Your task to perform on an android device: stop showing notifications on the lock screen Image 0: 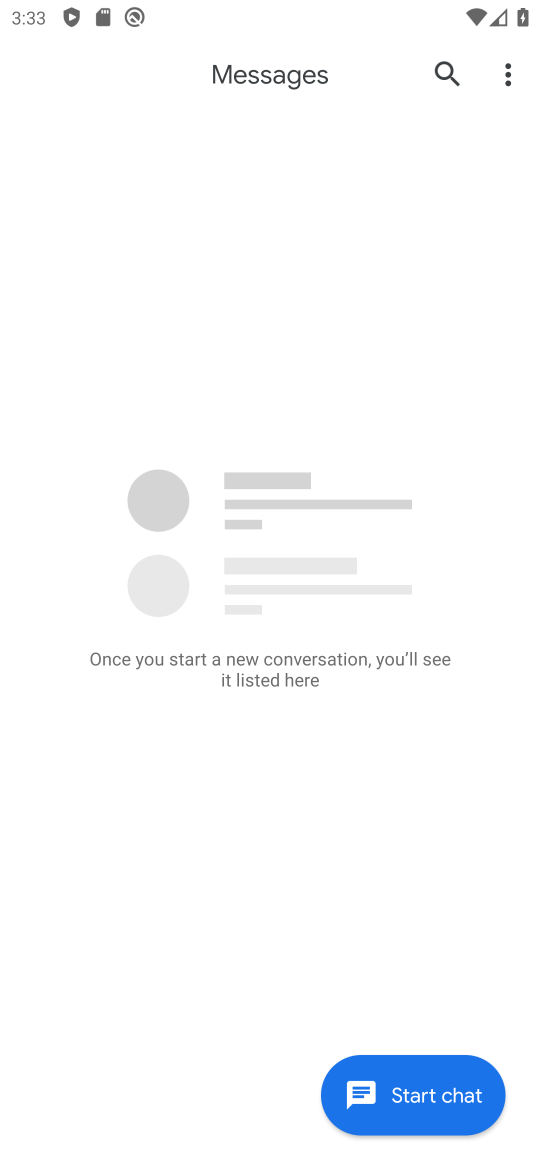
Step 0: press back button
Your task to perform on an android device: stop showing notifications on the lock screen Image 1: 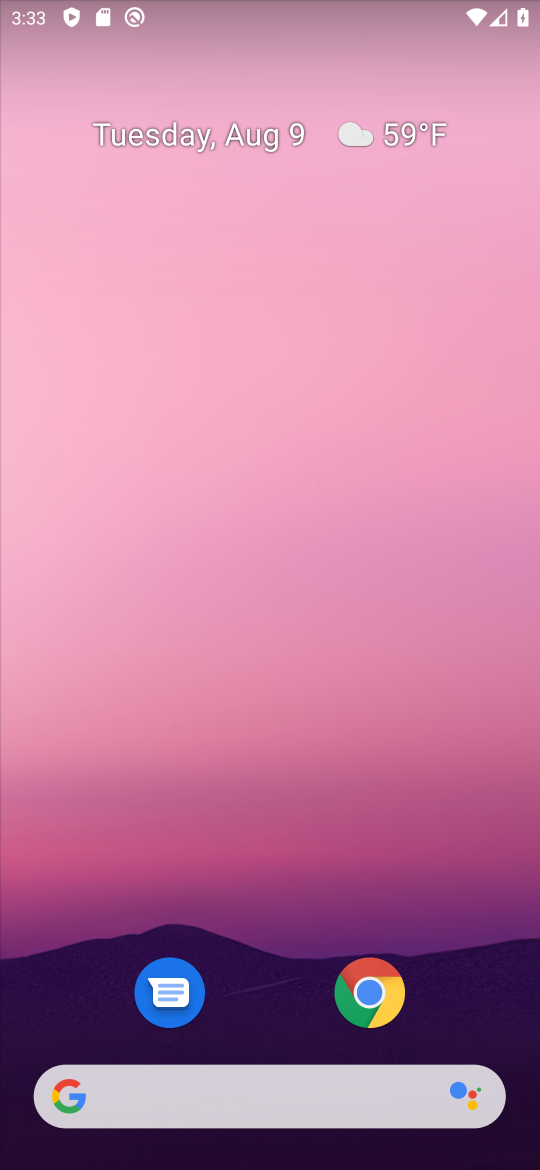
Step 1: drag from (275, 959) to (369, 134)
Your task to perform on an android device: stop showing notifications on the lock screen Image 2: 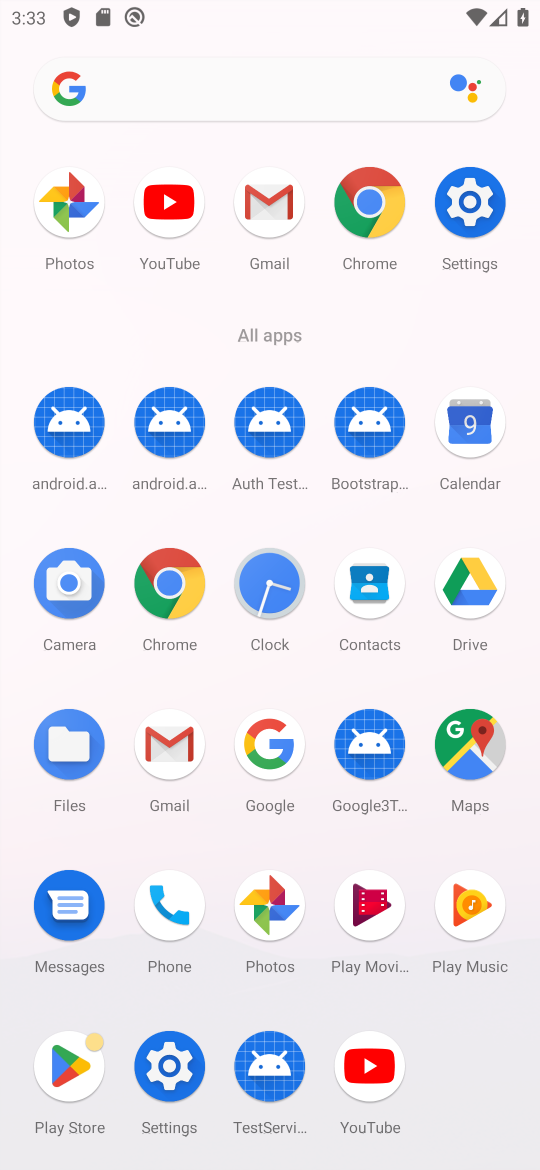
Step 2: click (473, 225)
Your task to perform on an android device: stop showing notifications on the lock screen Image 3: 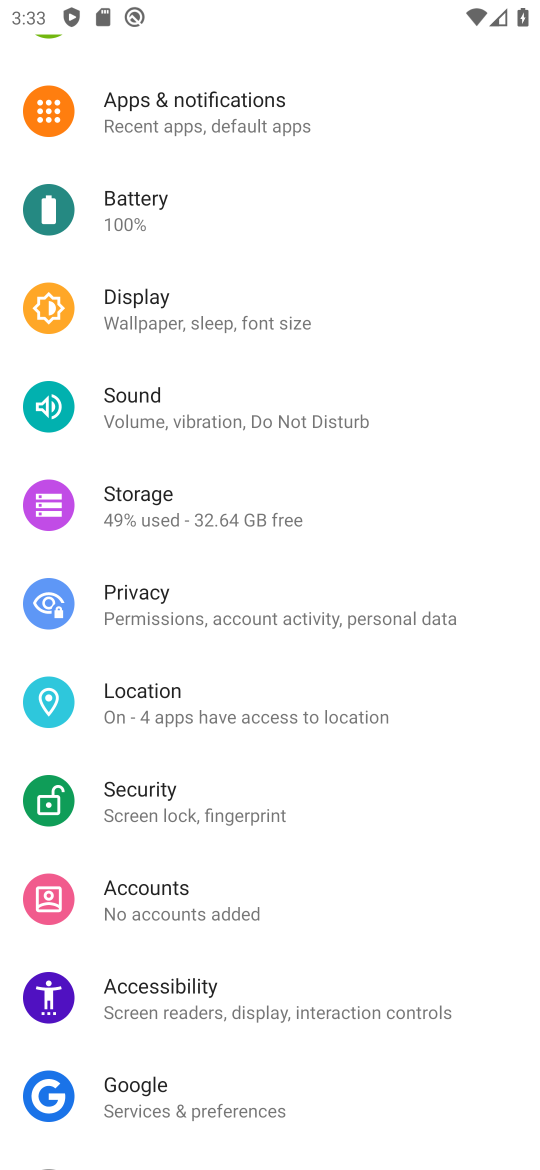
Step 3: drag from (258, 914) to (358, 168)
Your task to perform on an android device: stop showing notifications on the lock screen Image 4: 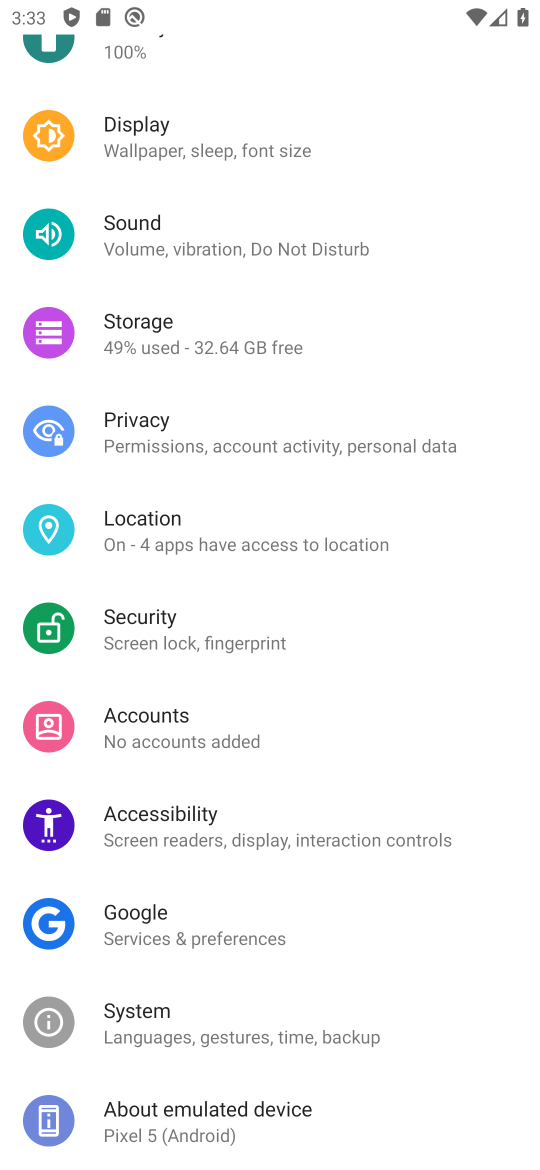
Step 4: drag from (305, 368) to (290, 1157)
Your task to perform on an android device: stop showing notifications on the lock screen Image 5: 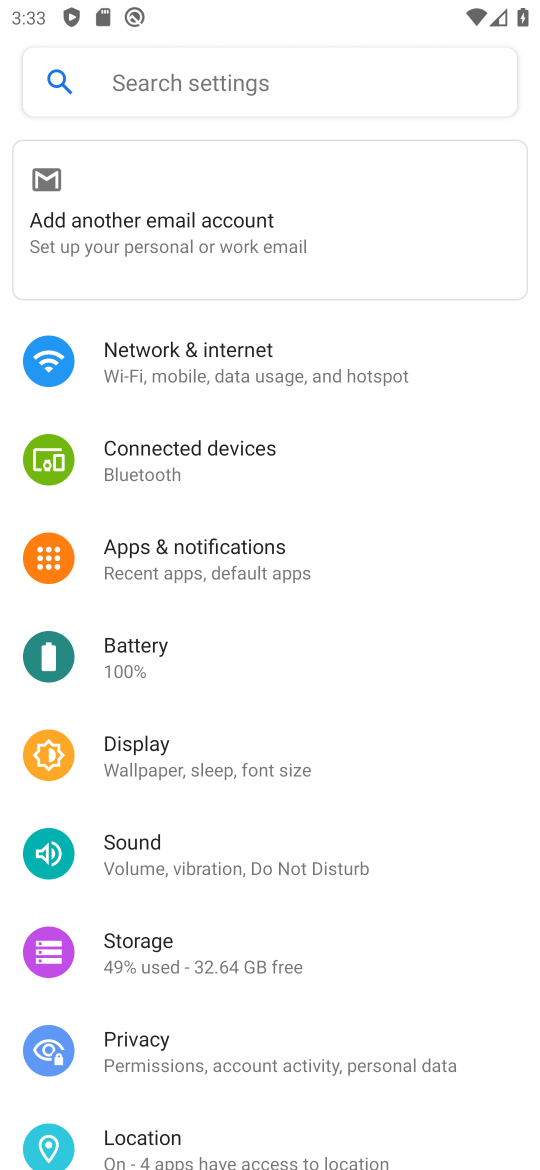
Step 5: click (246, 578)
Your task to perform on an android device: stop showing notifications on the lock screen Image 6: 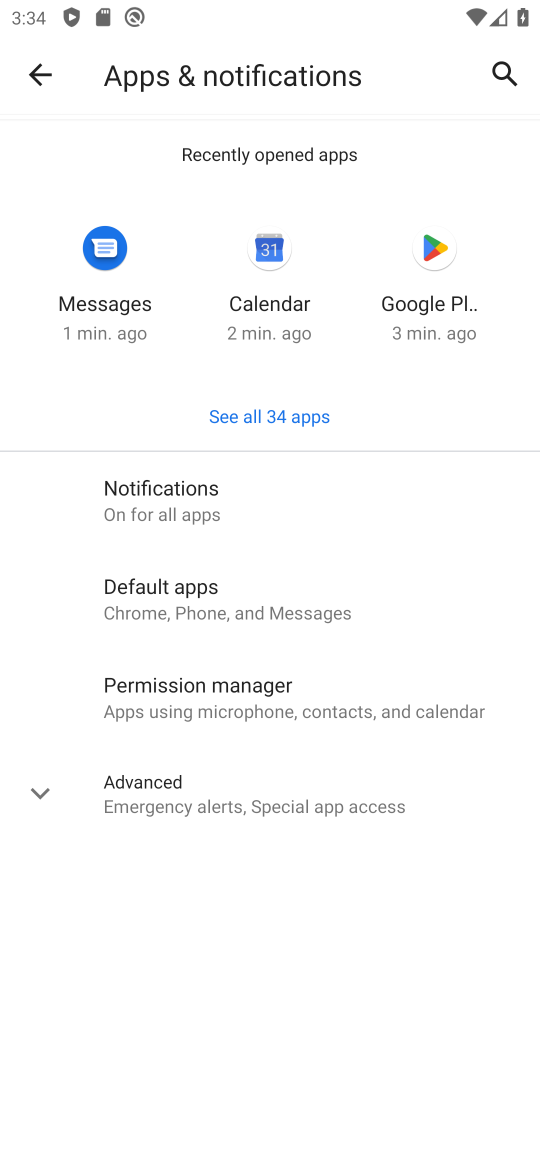
Step 6: click (279, 485)
Your task to perform on an android device: stop showing notifications on the lock screen Image 7: 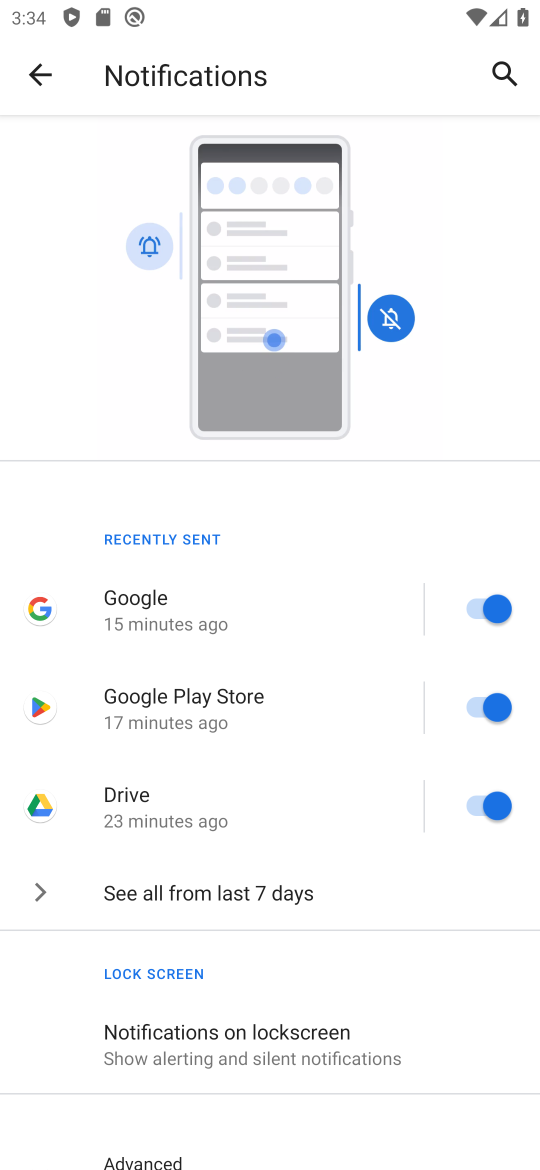
Step 7: click (301, 1043)
Your task to perform on an android device: stop showing notifications on the lock screen Image 8: 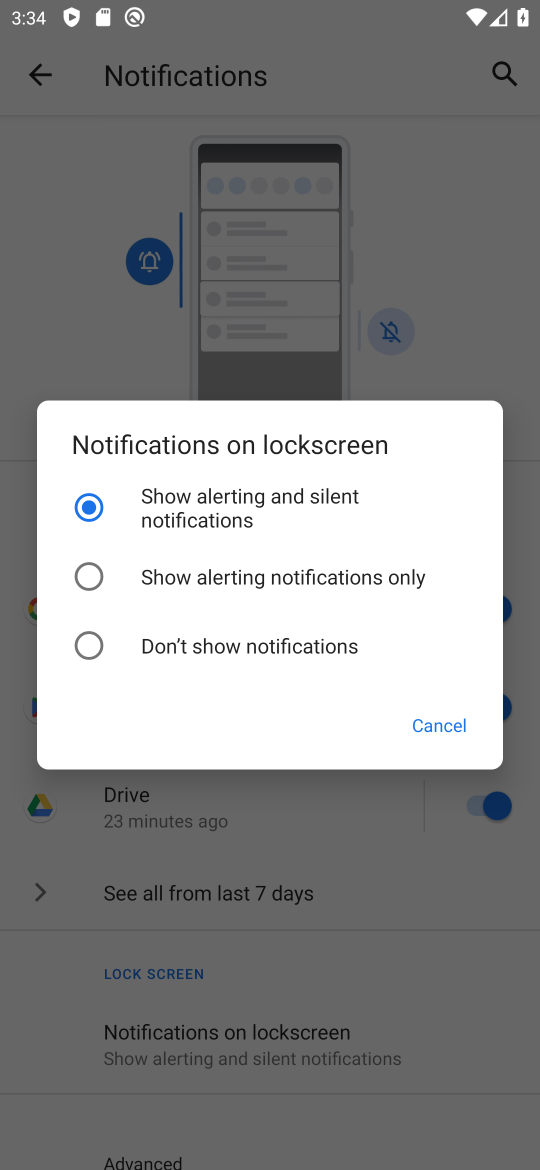
Step 8: click (100, 635)
Your task to perform on an android device: stop showing notifications on the lock screen Image 9: 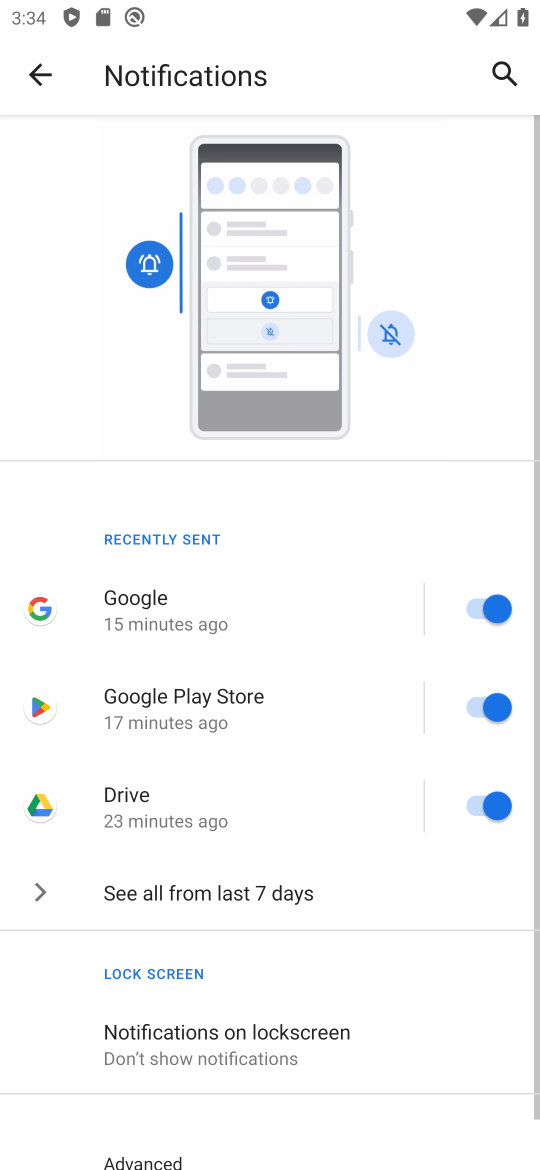
Step 9: task complete